Your task to perform on an android device: What's the weather going to be this weekend? Image 0: 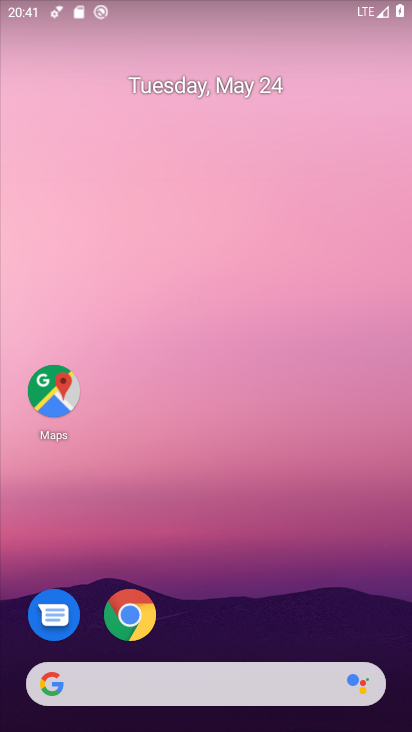
Step 0: drag from (230, 619) to (262, 188)
Your task to perform on an android device: What's the weather going to be this weekend? Image 1: 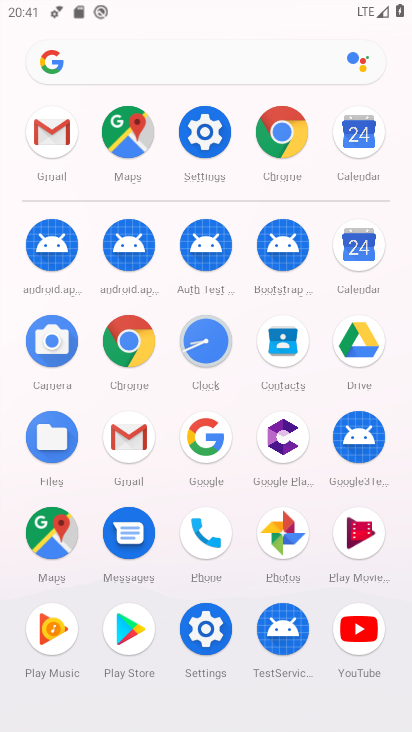
Step 1: click (365, 241)
Your task to perform on an android device: What's the weather going to be this weekend? Image 2: 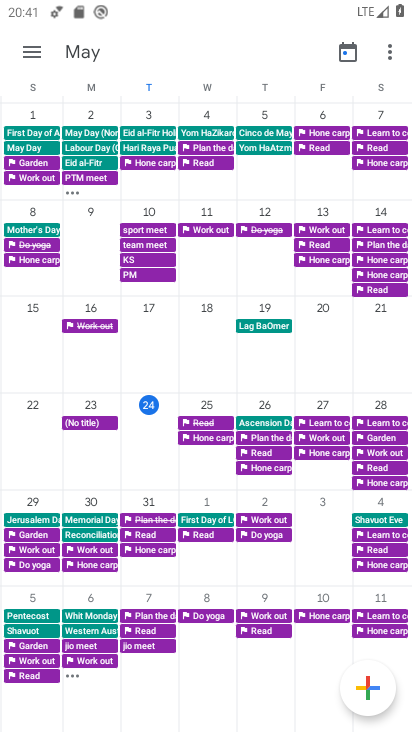
Step 2: click (25, 50)
Your task to perform on an android device: What's the weather going to be this weekend? Image 3: 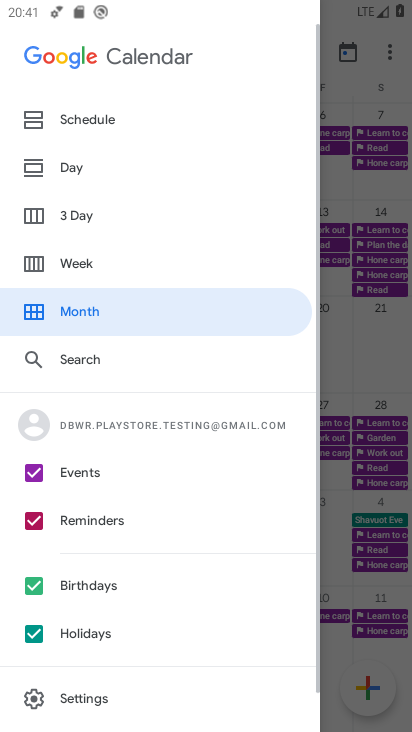
Step 3: click (106, 257)
Your task to perform on an android device: What's the weather going to be this weekend? Image 4: 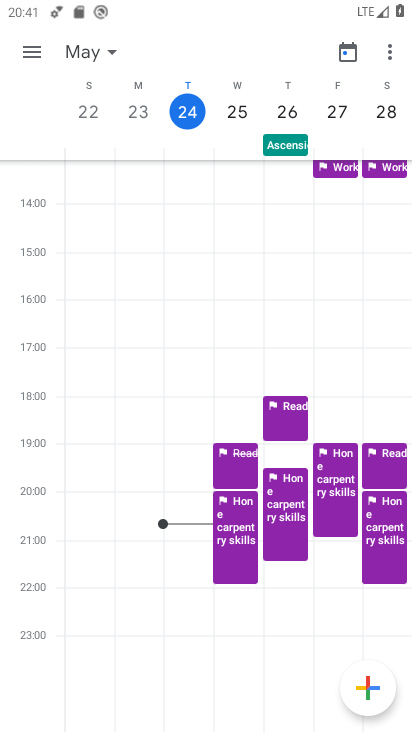
Step 4: task complete